Your task to perform on an android device: Open the map Image 0: 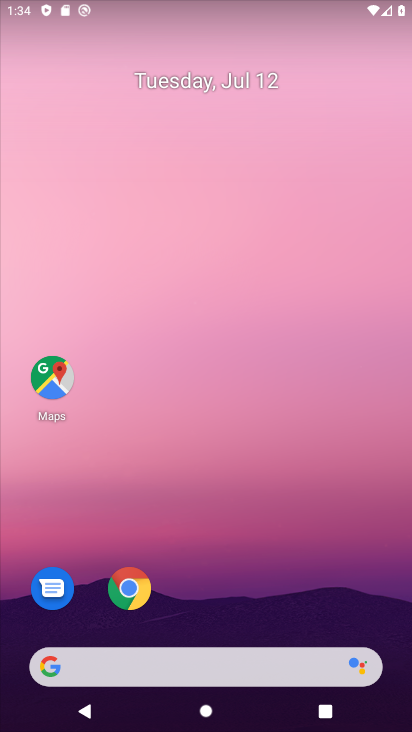
Step 0: click (54, 384)
Your task to perform on an android device: Open the map Image 1: 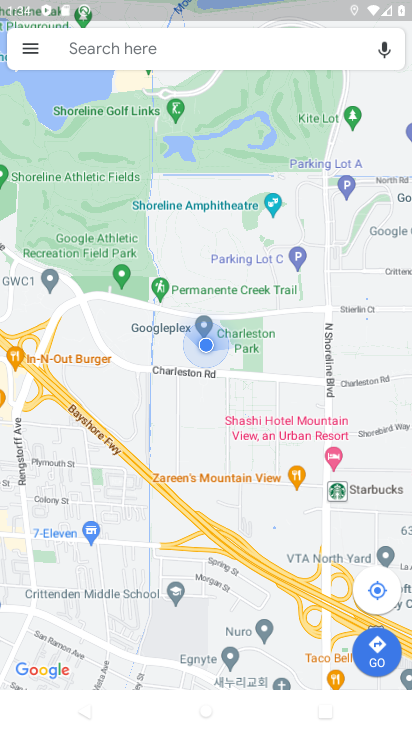
Step 1: task complete